Your task to perform on an android device: uninstall "Google Pay: Save, Pay, Manage" Image 0: 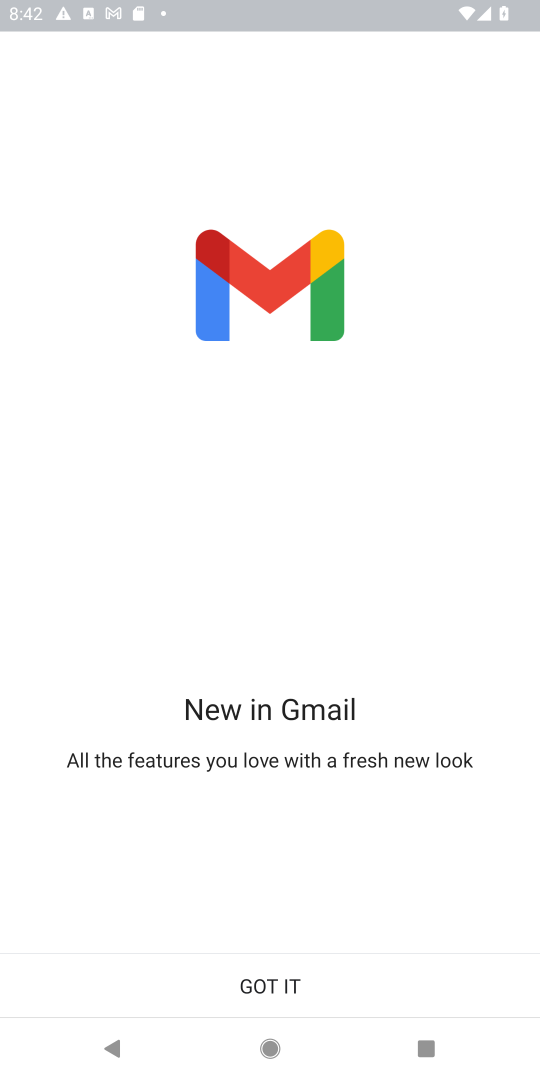
Step 0: press home button
Your task to perform on an android device: uninstall "Google Pay: Save, Pay, Manage" Image 1: 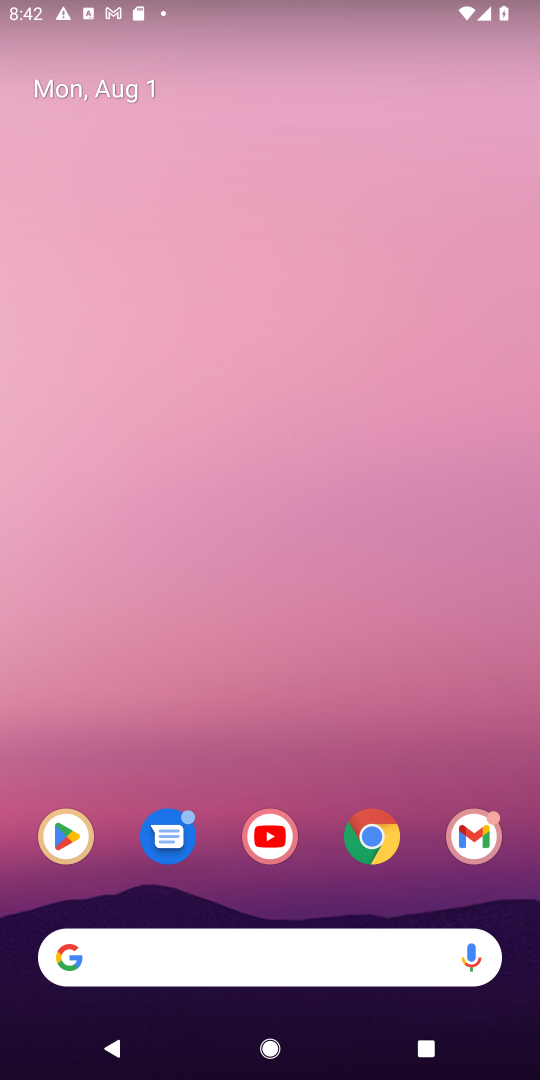
Step 1: click (80, 834)
Your task to perform on an android device: uninstall "Google Pay: Save, Pay, Manage" Image 2: 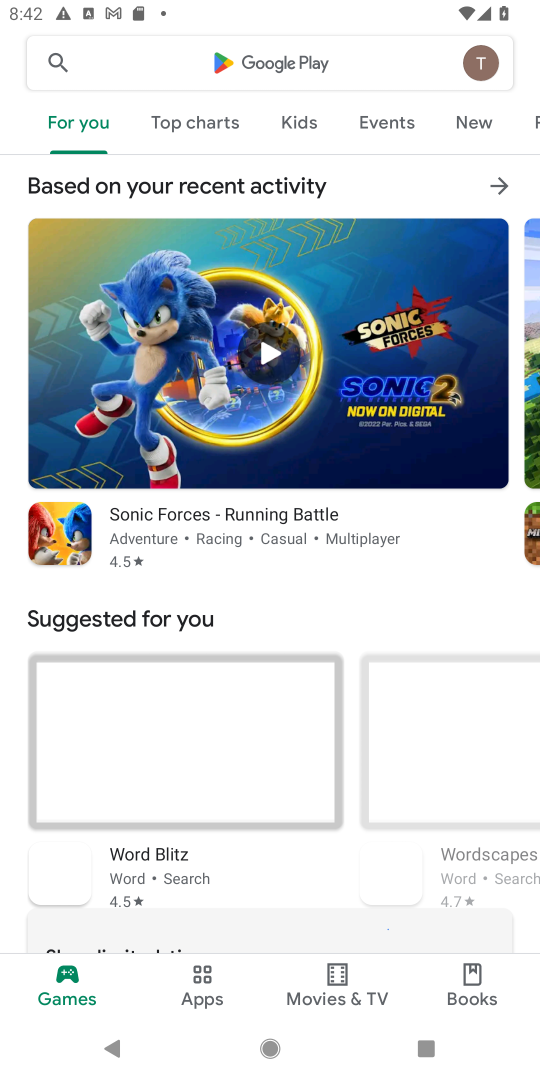
Step 2: click (355, 59)
Your task to perform on an android device: uninstall "Google Pay: Save, Pay, Manage" Image 3: 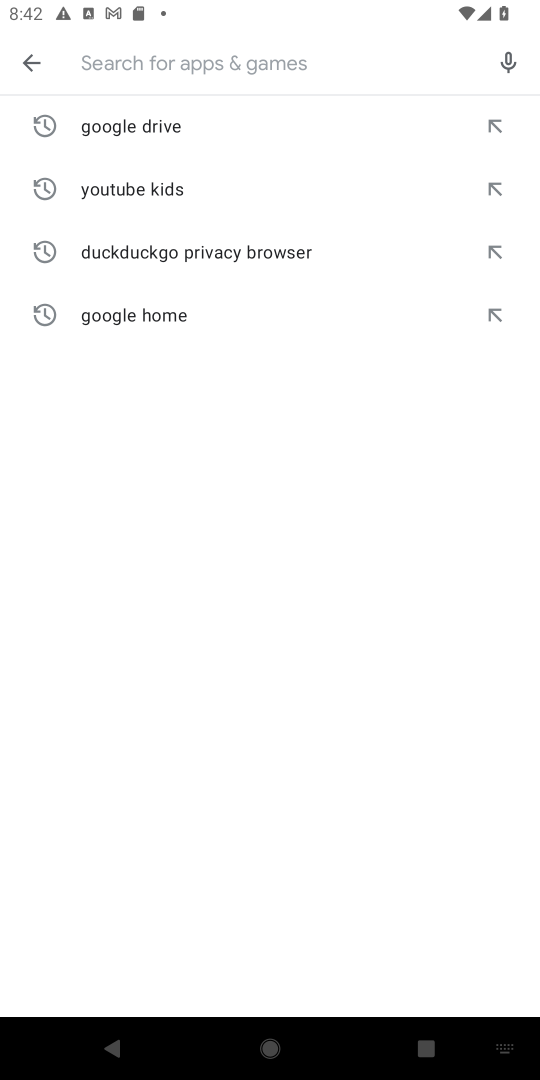
Step 3: type "Google Pay: Save, Pay, Manage"
Your task to perform on an android device: uninstall "Google Pay: Save, Pay, Manage" Image 4: 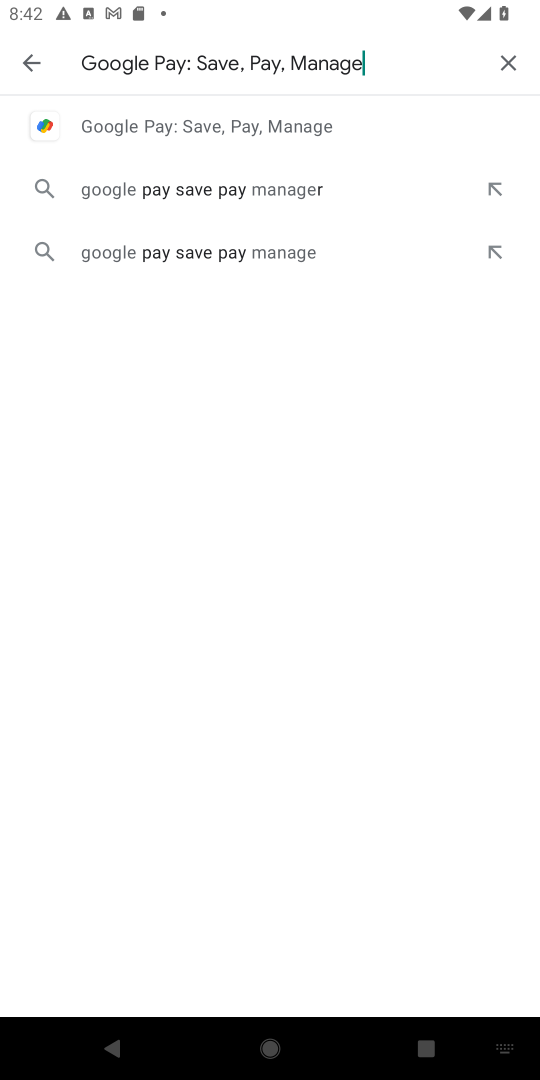
Step 4: click (191, 127)
Your task to perform on an android device: uninstall "Google Pay: Save, Pay, Manage" Image 5: 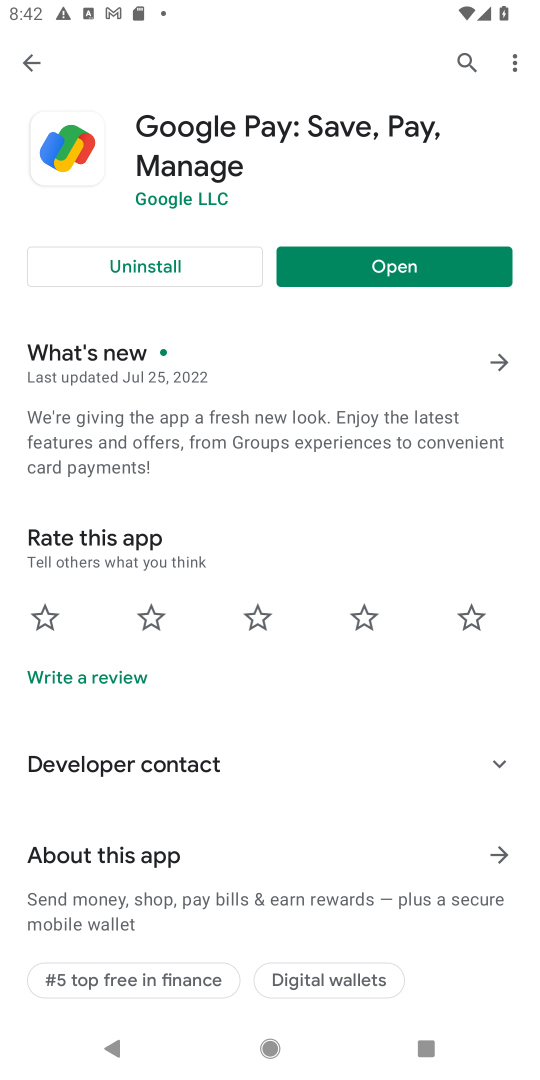
Step 5: click (155, 264)
Your task to perform on an android device: uninstall "Google Pay: Save, Pay, Manage" Image 6: 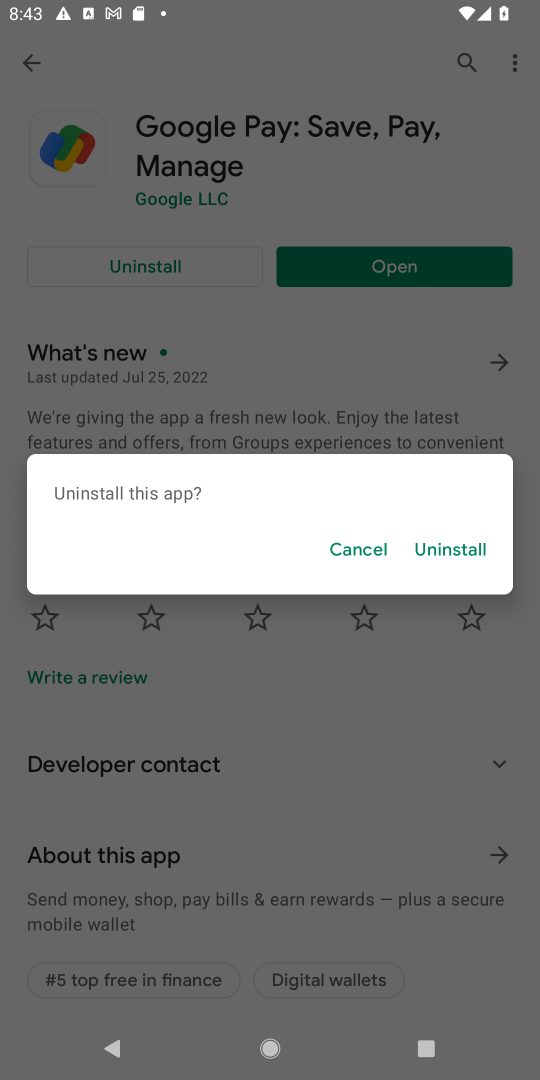
Step 6: click (467, 545)
Your task to perform on an android device: uninstall "Google Pay: Save, Pay, Manage" Image 7: 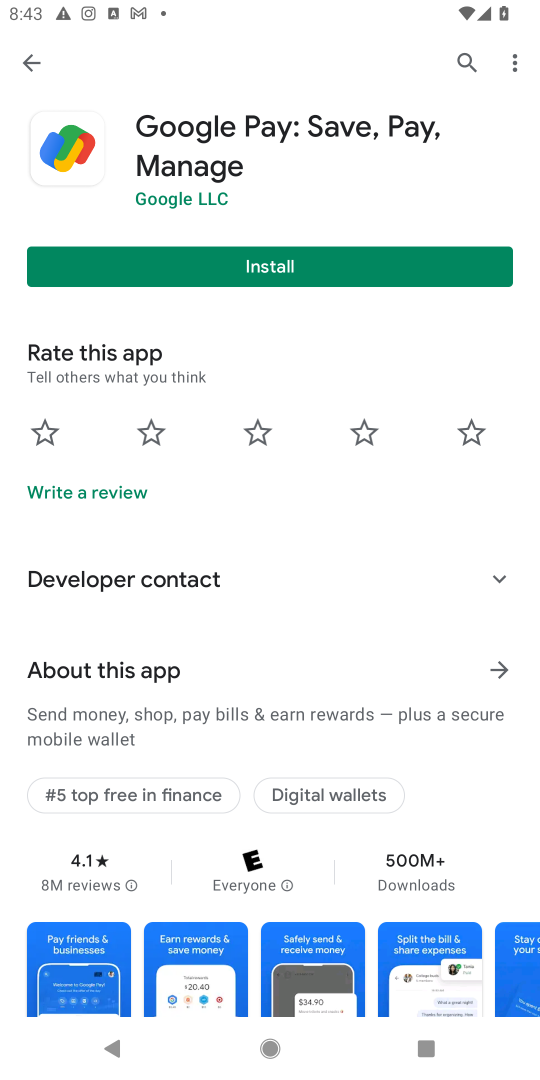
Step 7: task complete